Your task to perform on an android device: Open battery settings Image 0: 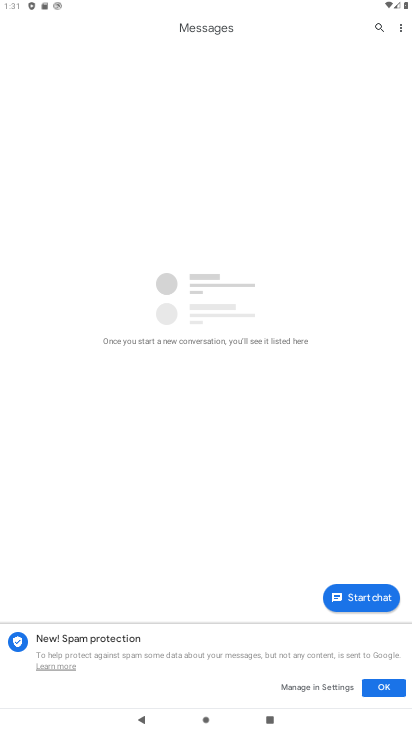
Step 0: press home button
Your task to perform on an android device: Open battery settings Image 1: 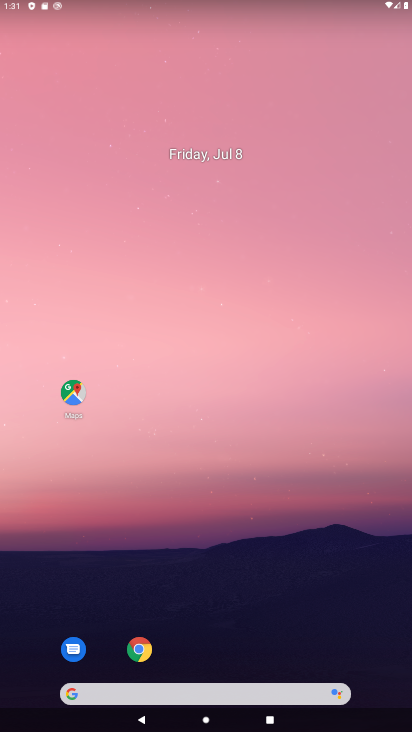
Step 1: drag from (275, 582) to (234, 63)
Your task to perform on an android device: Open battery settings Image 2: 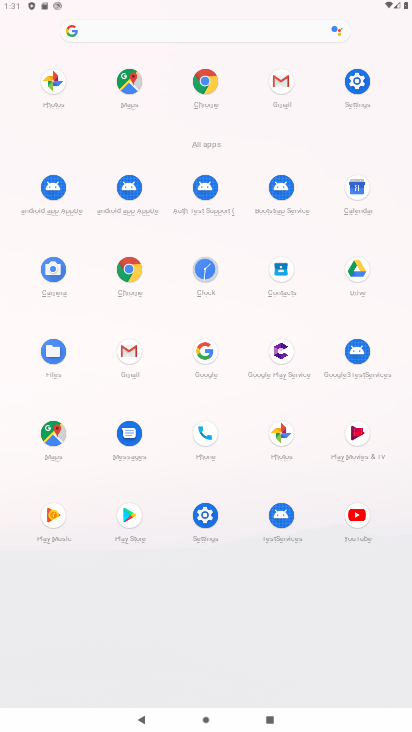
Step 2: click (363, 82)
Your task to perform on an android device: Open battery settings Image 3: 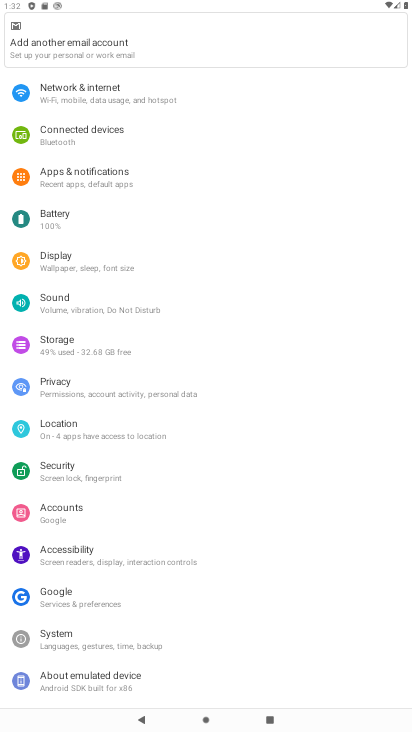
Step 3: click (70, 219)
Your task to perform on an android device: Open battery settings Image 4: 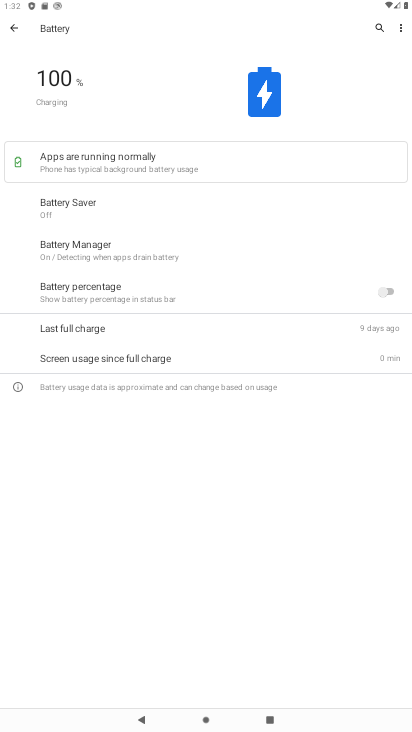
Step 4: task complete